Your task to perform on an android device: Search for vegetarian restaurants on Maps Image 0: 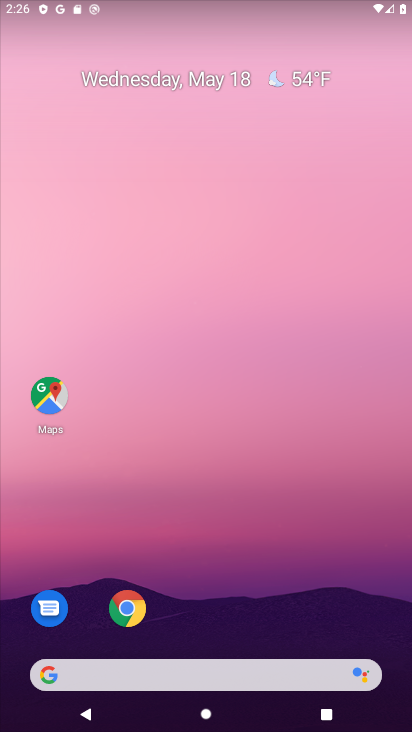
Step 0: click (59, 388)
Your task to perform on an android device: Search for vegetarian restaurants on Maps Image 1: 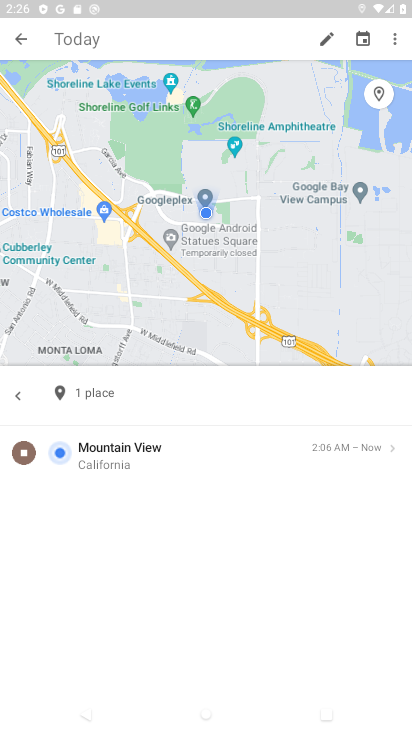
Step 1: click (24, 44)
Your task to perform on an android device: Search for vegetarian restaurants on Maps Image 2: 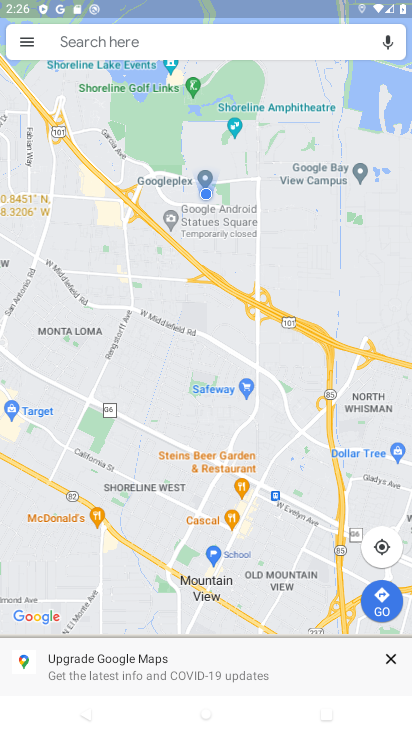
Step 2: click (60, 37)
Your task to perform on an android device: Search for vegetarian restaurants on Maps Image 3: 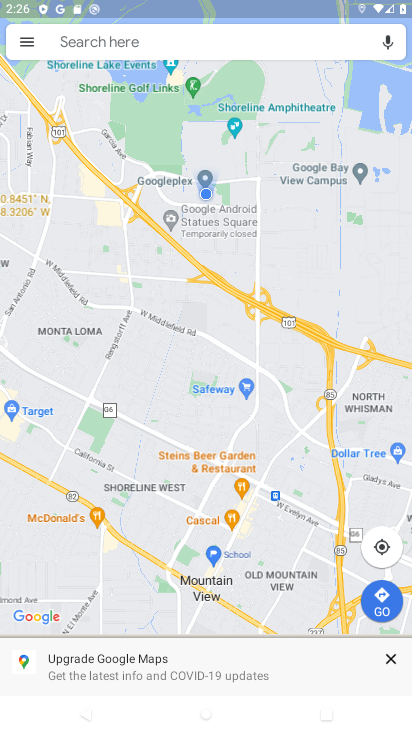
Step 3: click (61, 40)
Your task to perform on an android device: Search for vegetarian restaurants on Maps Image 4: 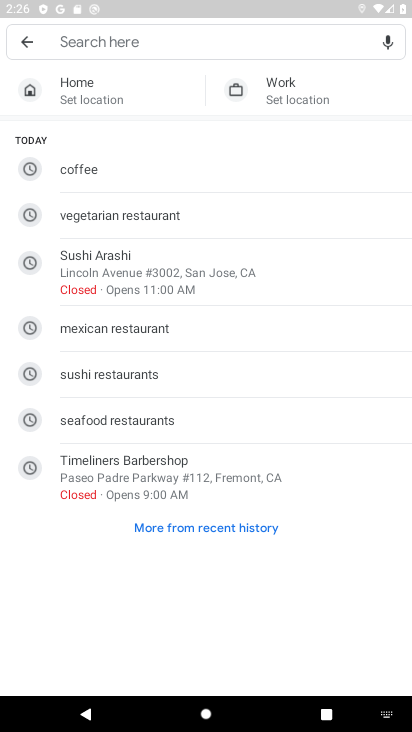
Step 4: type "vegetarian restaurant "
Your task to perform on an android device: Search for vegetarian restaurants on Maps Image 5: 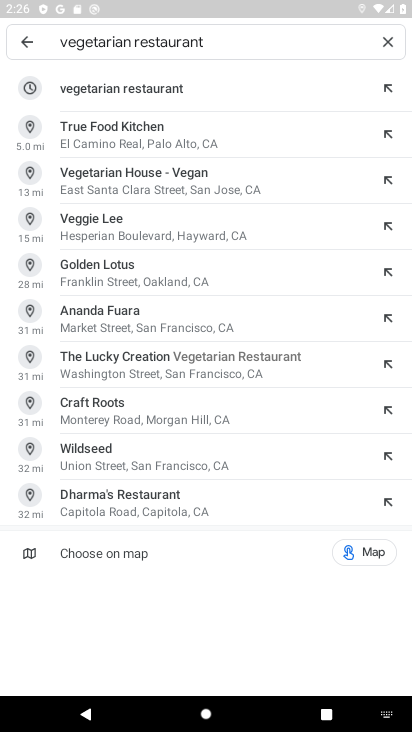
Step 5: click (84, 87)
Your task to perform on an android device: Search for vegetarian restaurants on Maps Image 6: 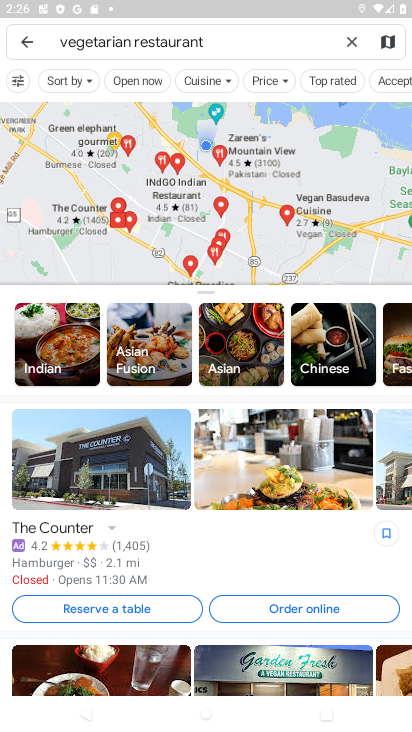
Step 6: task complete